Your task to perform on an android device: open app "DoorDash - Dasher" Image 0: 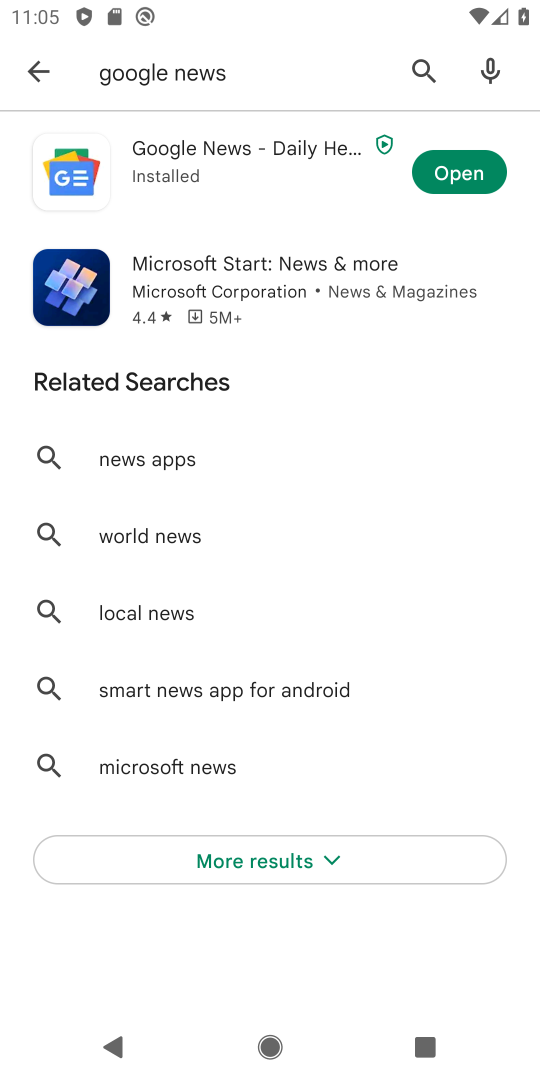
Step 0: click (264, 73)
Your task to perform on an android device: open app "DoorDash - Dasher" Image 1: 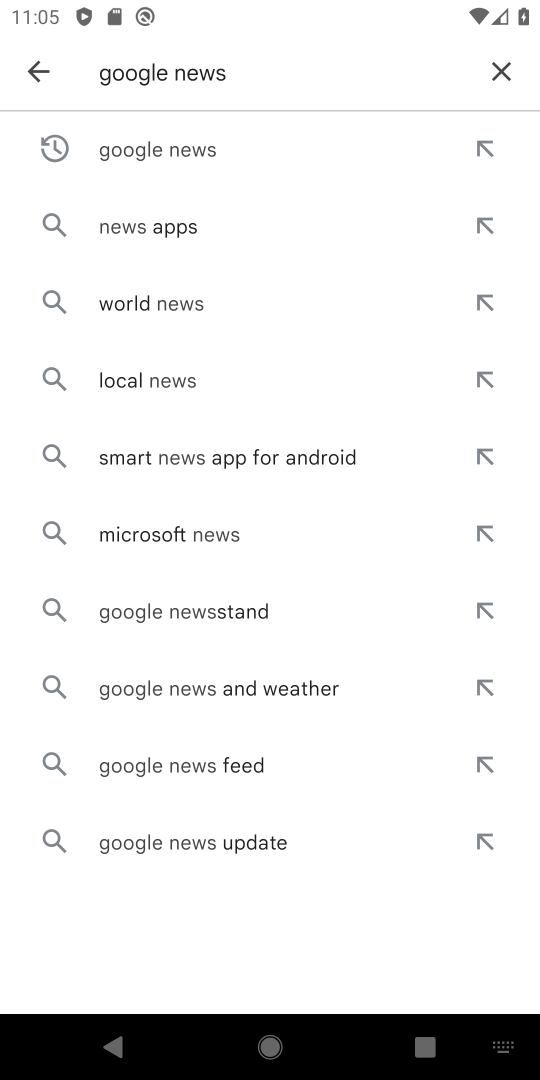
Step 1: click (493, 62)
Your task to perform on an android device: open app "DoorDash - Dasher" Image 2: 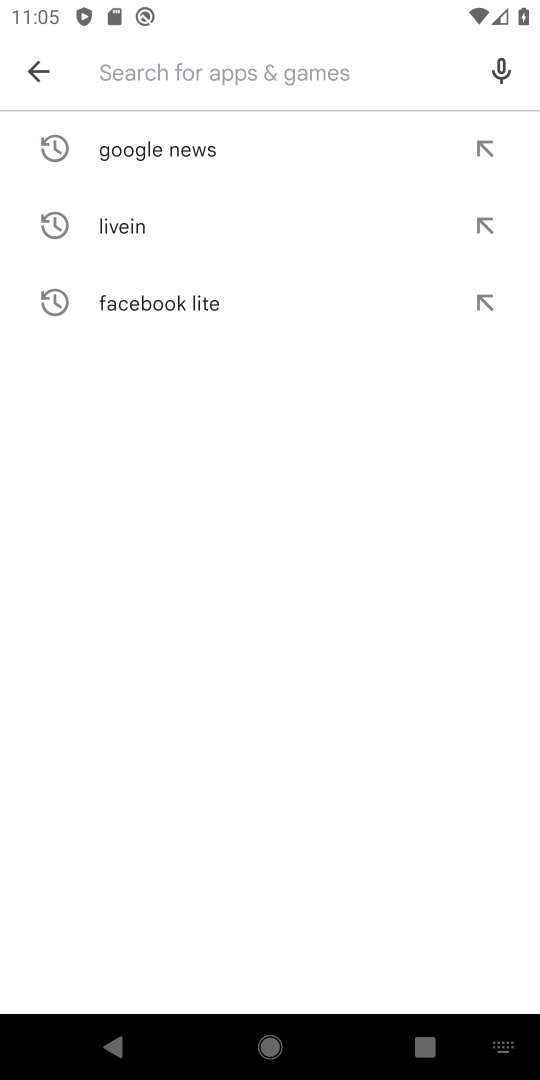
Step 2: type "doordash-Dasher"
Your task to perform on an android device: open app "DoorDash - Dasher" Image 3: 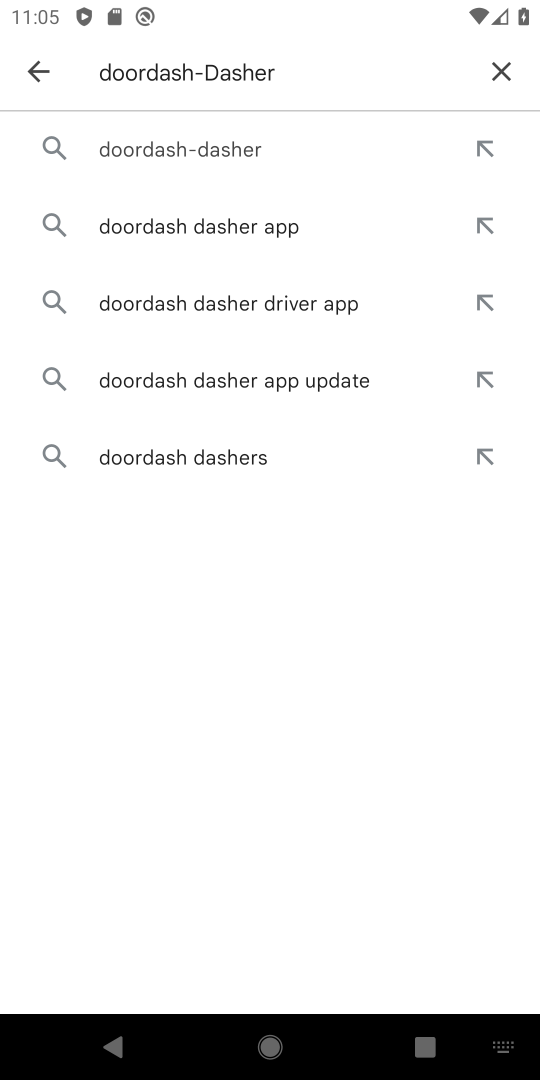
Step 3: click (197, 164)
Your task to perform on an android device: open app "DoorDash - Dasher" Image 4: 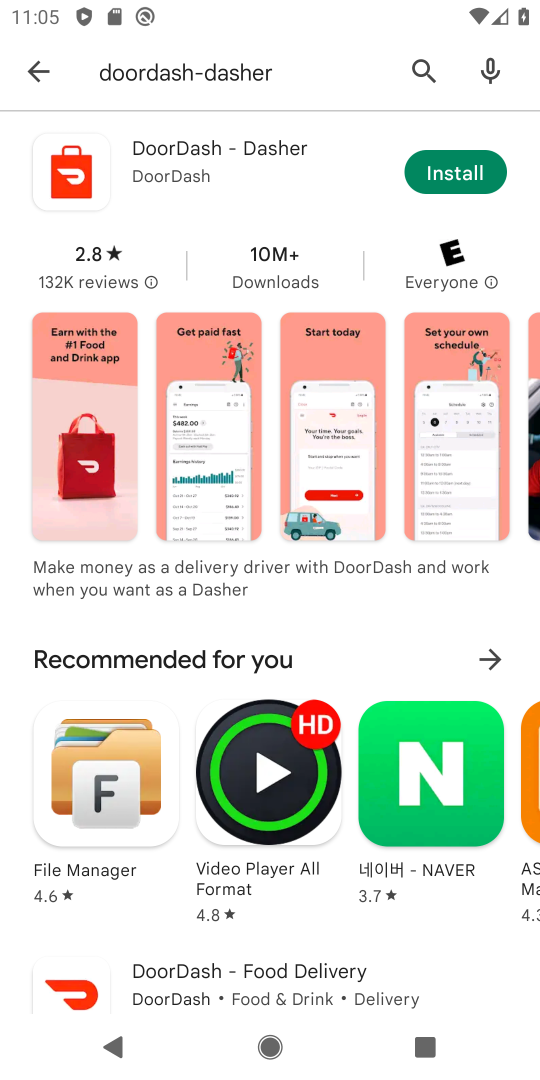
Step 4: task complete